Your task to perform on an android device: change notifications settings Image 0: 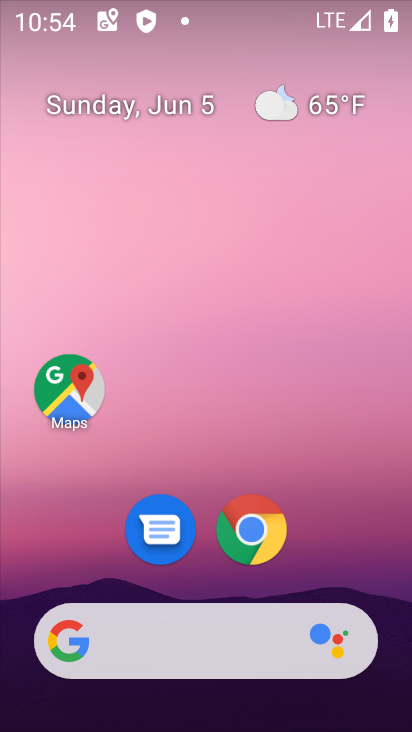
Step 0: drag from (248, 694) to (301, 75)
Your task to perform on an android device: change notifications settings Image 1: 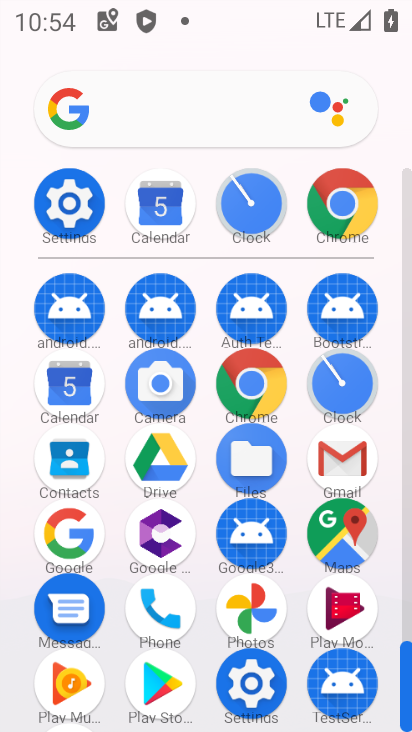
Step 1: click (48, 192)
Your task to perform on an android device: change notifications settings Image 2: 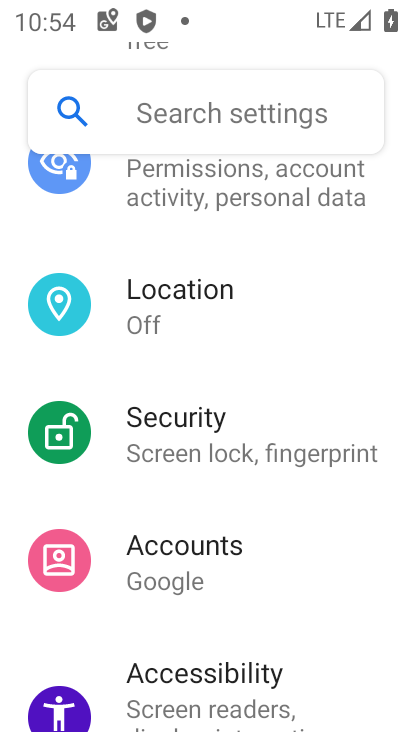
Step 2: drag from (308, 222) to (189, 549)
Your task to perform on an android device: change notifications settings Image 3: 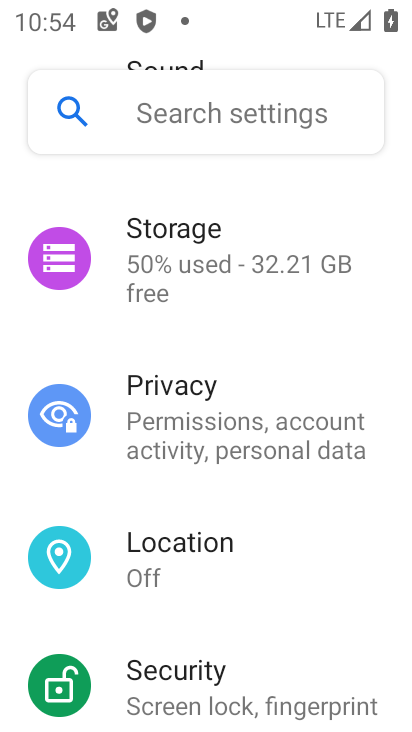
Step 3: drag from (296, 209) to (152, 719)
Your task to perform on an android device: change notifications settings Image 4: 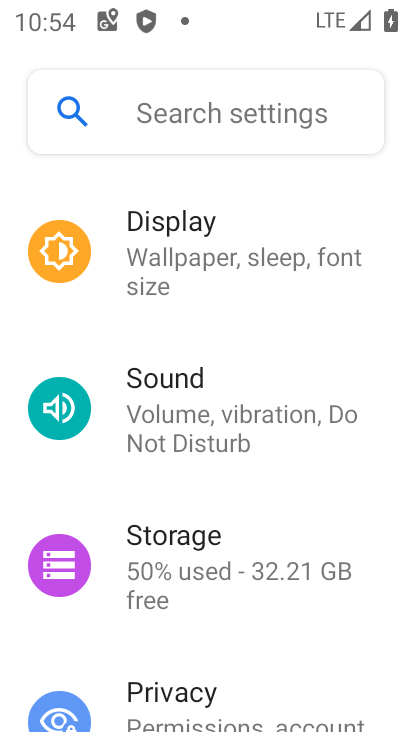
Step 4: drag from (280, 287) to (132, 704)
Your task to perform on an android device: change notifications settings Image 5: 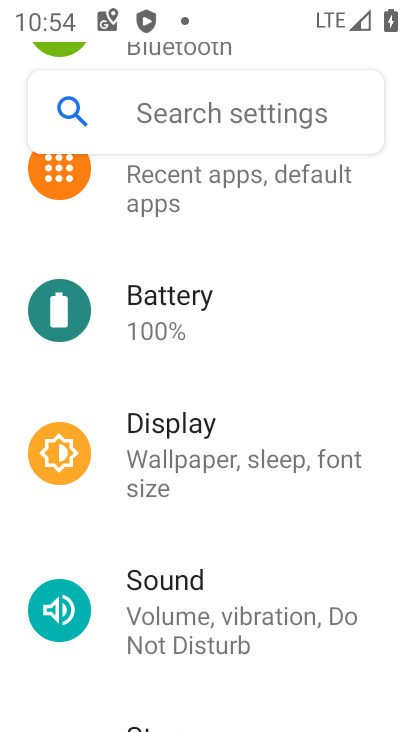
Step 5: drag from (309, 224) to (168, 644)
Your task to perform on an android device: change notifications settings Image 6: 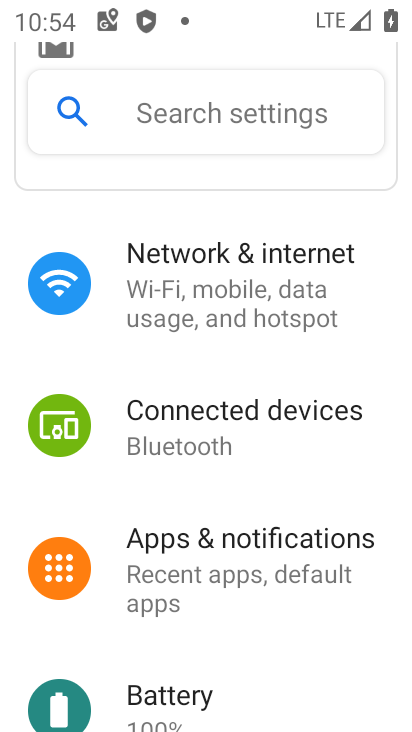
Step 6: click (295, 542)
Your task to perform on an android device: change notifications settings Image 7: 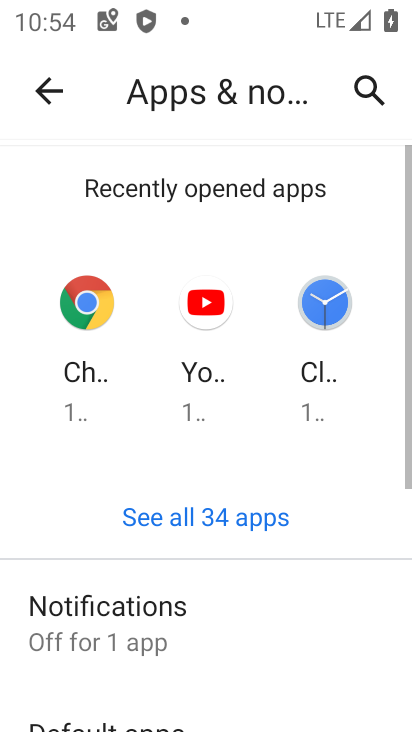
Step 7: task complete